Your task to perform on an android device: make emails show in primary in the gmail app Image 0: 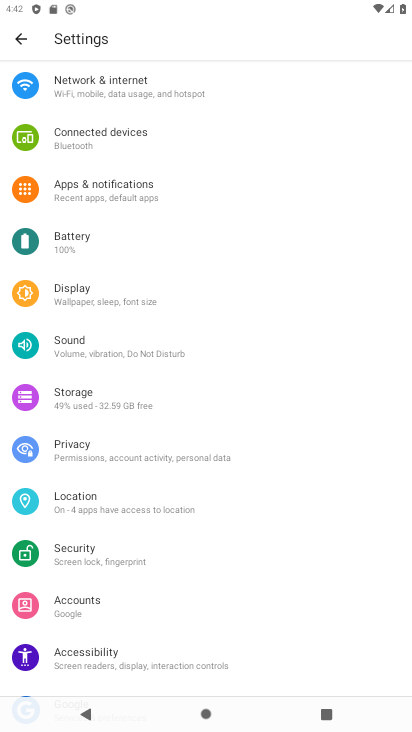
Step 0: press home button
Your task to perform on an android device: make emails show in primary in the gmail app Image 1: 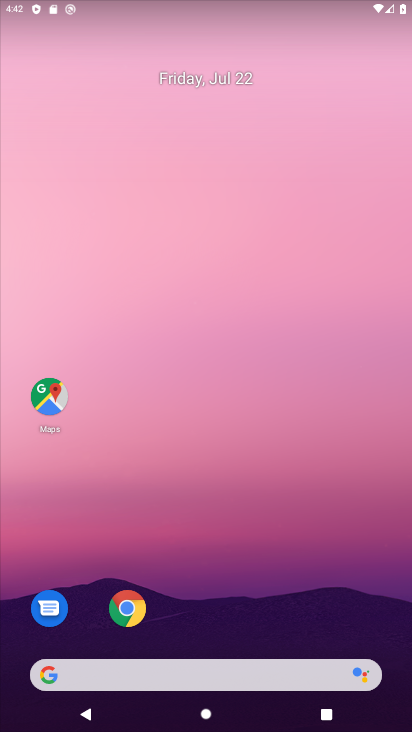
Step 1: click (226, 166)
Your task to perform on an android device: make emails show in primary in the gmail app Image 2: 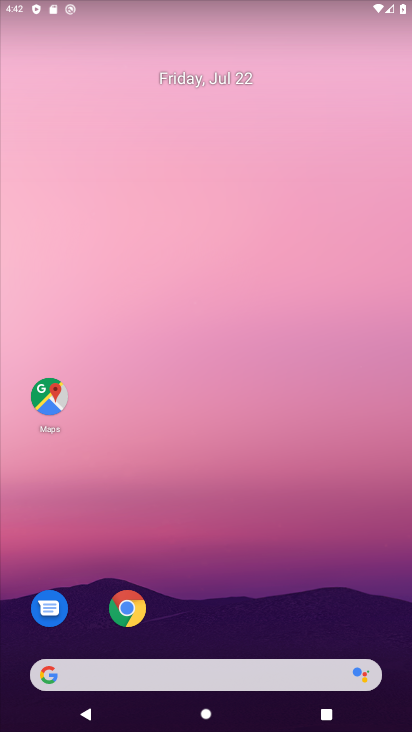
Step 2: drag from (205, 345) to (214, 120)
Your task to perform on an android device: make emails show in primary in the gmail app Image 3: 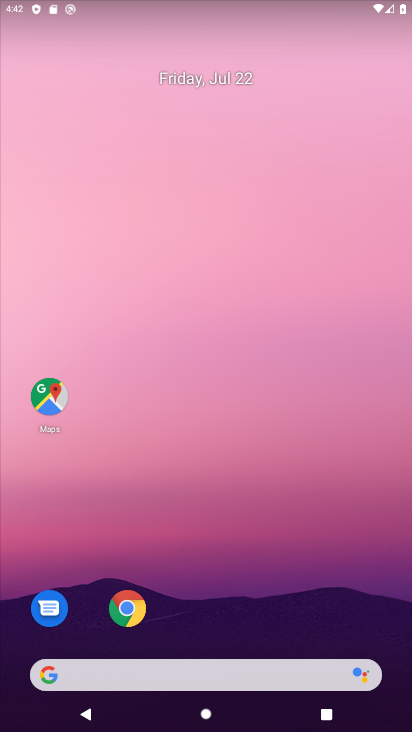
Step 3: drag from (177, 634) to (200, 192)
Your task to perform on an android device: make emails show in primary in the gmail app Image 4: 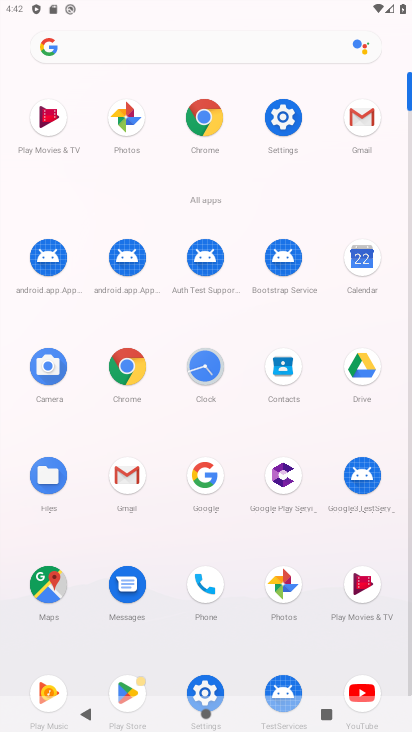
Step 4: click (352, 110)
Your task to perform on an android device: make emails show in primary in the gmail app Image 5: 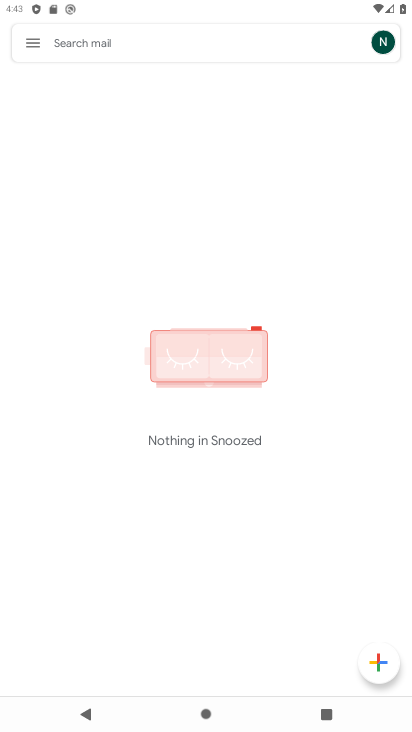
Step 5: click (352, 110)
Your task to perform on an android device: make emails show in primary in the gmail app Image 6: 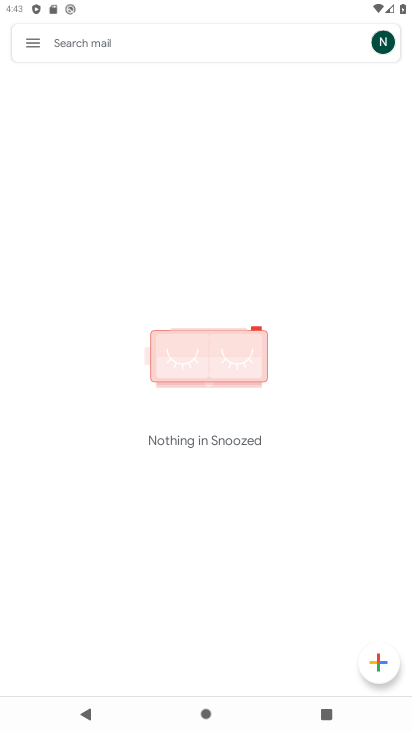
Step 6: click (17, 58)
Your task to perform on an android device: make emails show in primary in the gmail app Image 7: 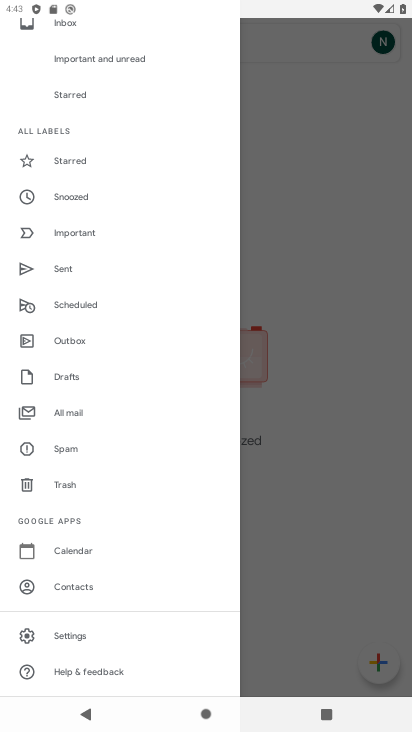
Step 7: click (155, 658)
Your task to perform on an android device: make emails show in primary in the gmail app Image 8: 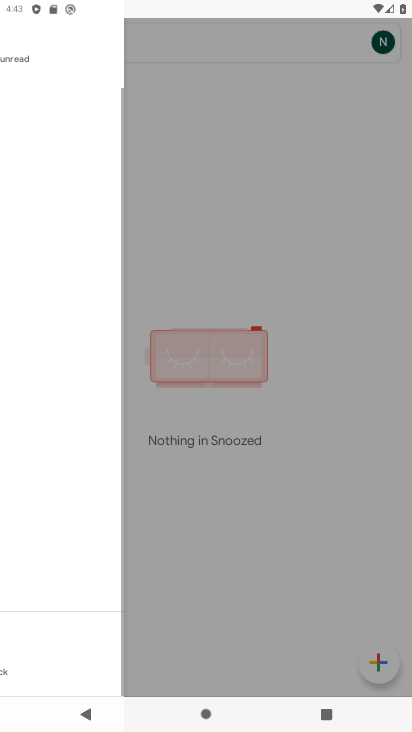
Step 8: task complete